Your task to perform on an android device: turn off notifications in google photos Image 0: 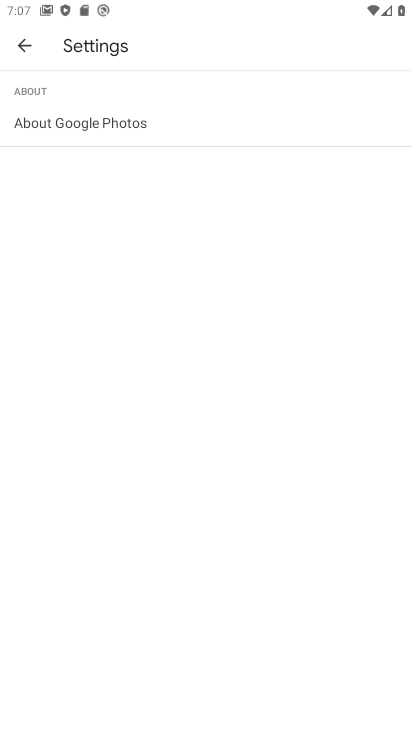
Step 0: press home button
Your task to perform on an android device: turn off notifications in google photos Image 1: 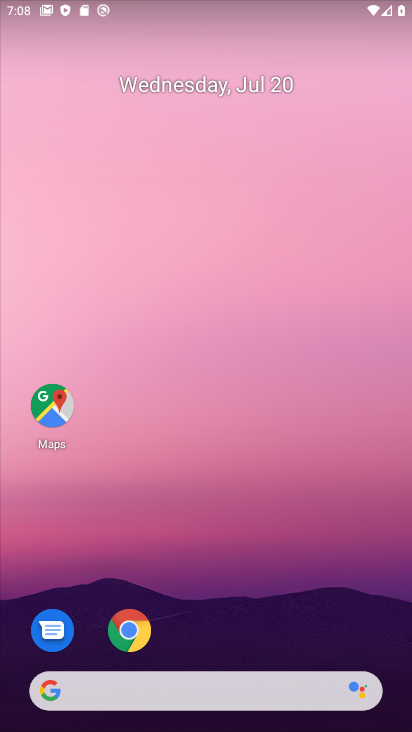
Step 1: drag from (208, 635) to (156, 138)
Your task to perform on an android device: turn off notifications in google photos Image 2: 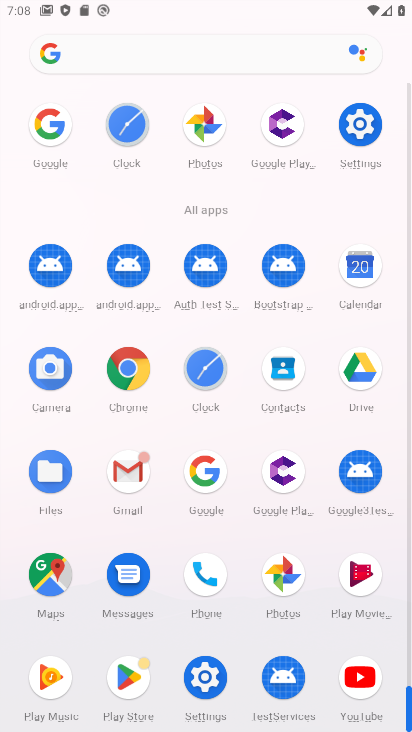
Step 2: click (284, 574)
Your task to perform on an android device: turn off notifications in google photos Image 3: 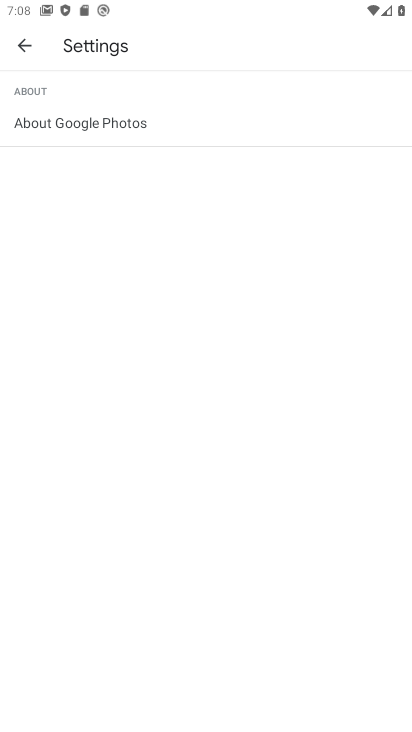
Step 3: click (27, 39)
Your task to perform on an android device: turn off notifications in google photos Image 4: 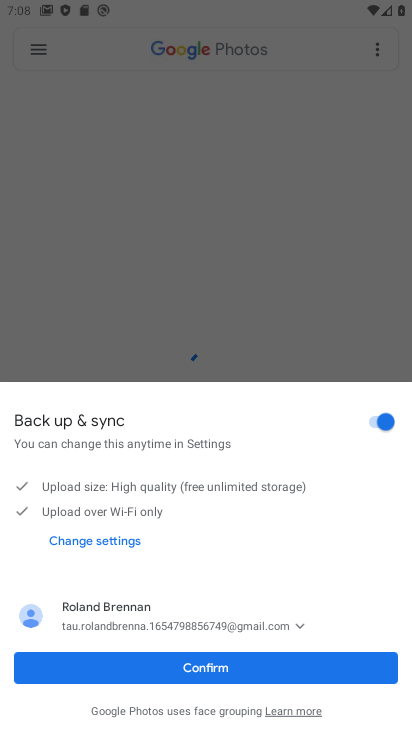
Step 4: click (230, 666)
Your task to perform on an android device: turn off notifications in google photos Image 5: 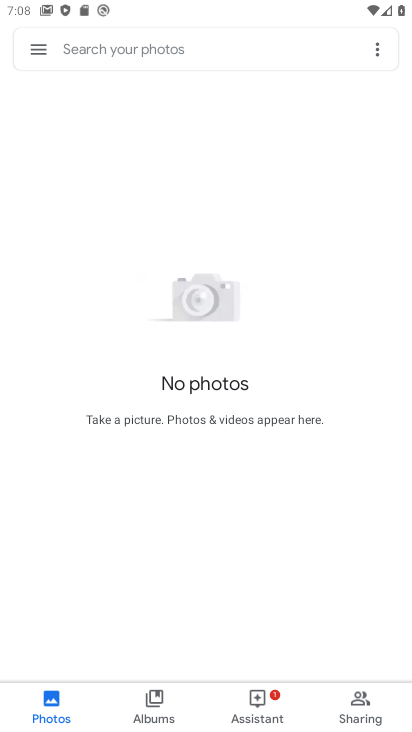
Step 5: click (49, 55)
Your task to perform on an android device: turn off notifications in google photos Image 6: 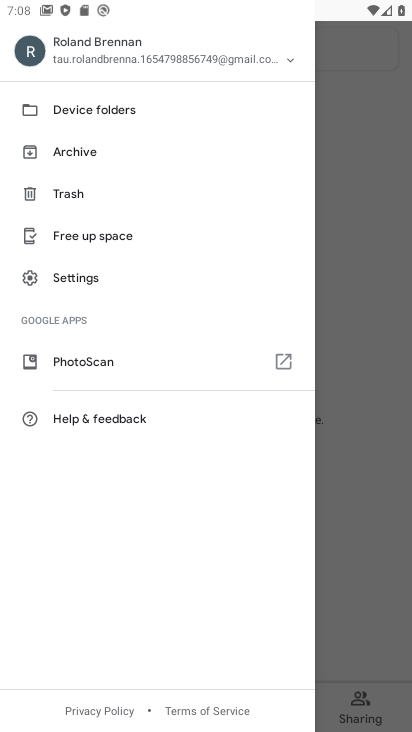
Step 6: click (95, 284)
Your task to perform on an android device: turn off notifications in google photos Image 7: 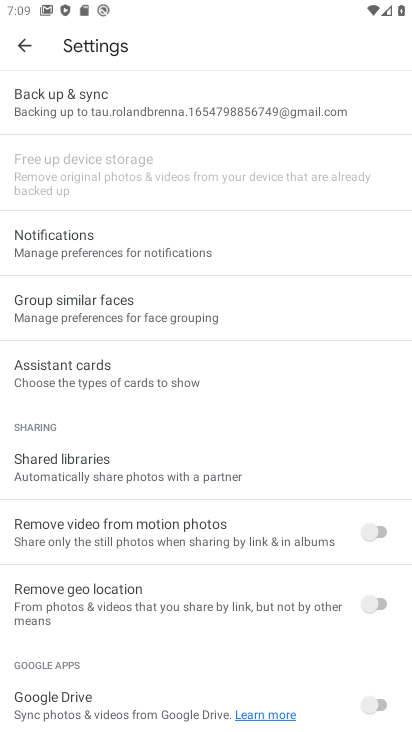
Step 7: click (177, 247)
Your task to perform on an android device: turn off notifications in google photos Image 8: 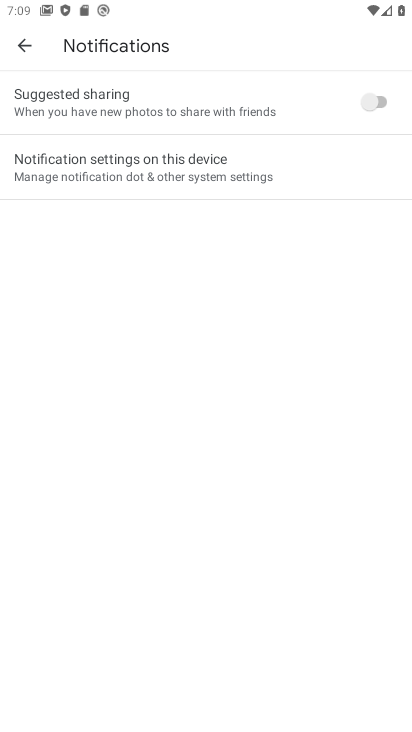
Step 8: click (205, 174)
Your task to perform on an android device: turn off notifications in google photos Image 9: 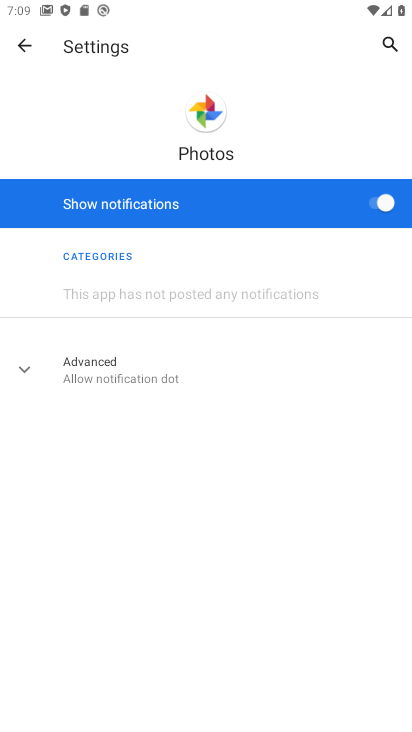
Step 9: click (378, 203)
Your task to perform on an android device: turn off notifications in google photos Image 10: 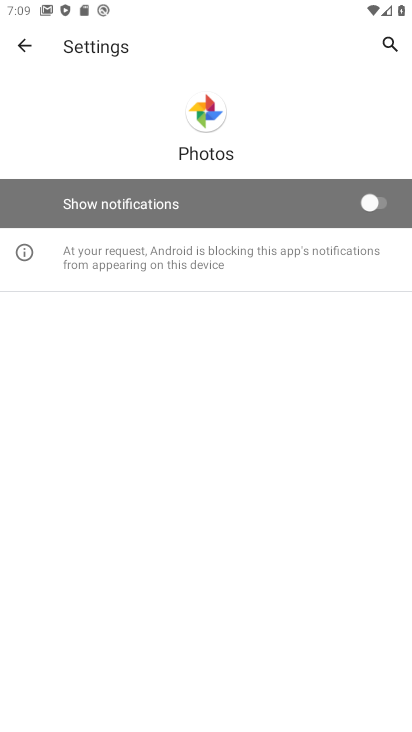
Step 10: task complete